Your task to perform on an android device: star an email in the gmail app Image 0: 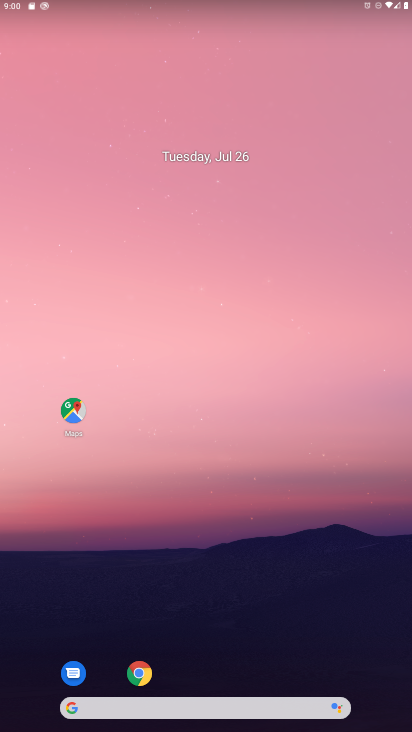
Step 0: drag from (327, 639) to (195, 15)
Your task to perform on an android device: star an email in the gmail app Image 1: 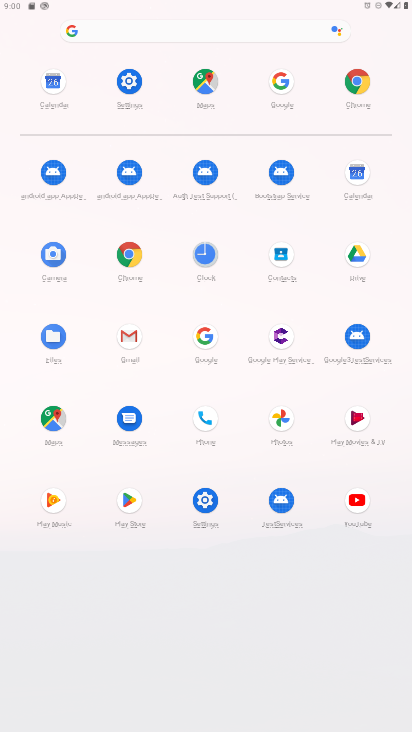
Step 1: click (127, 332)
Your task to perform on an android device: star an email in the gmail app Image 2: 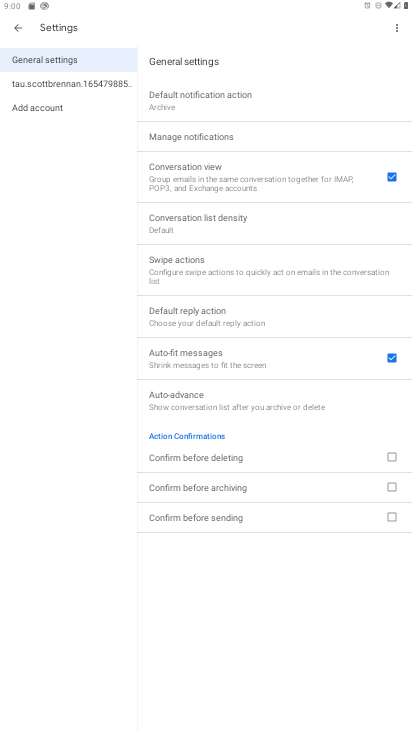
Step 2: click (73, 89)
Your task to perform on an android device: star an email in the gmail app Image 3: 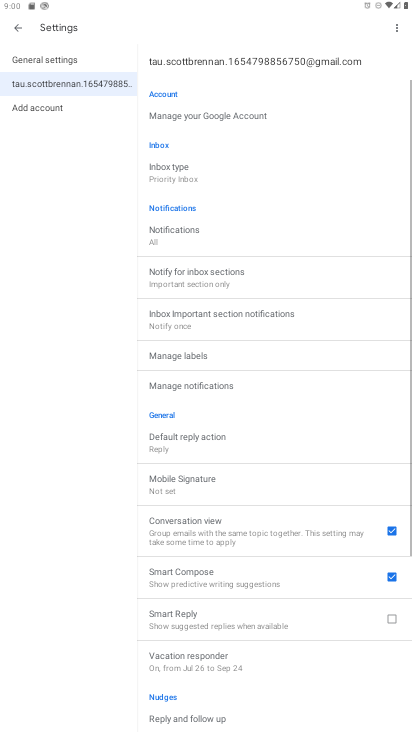
Step 3: press back button
Your task to perform on an android device: star an email in the gmail app Image 4: 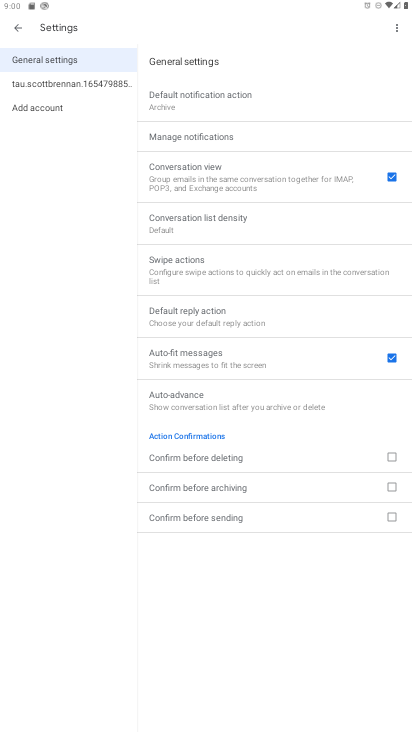
Step 4: press back button
Your task to perform on an android device: star an email in the gmail app Image 5: 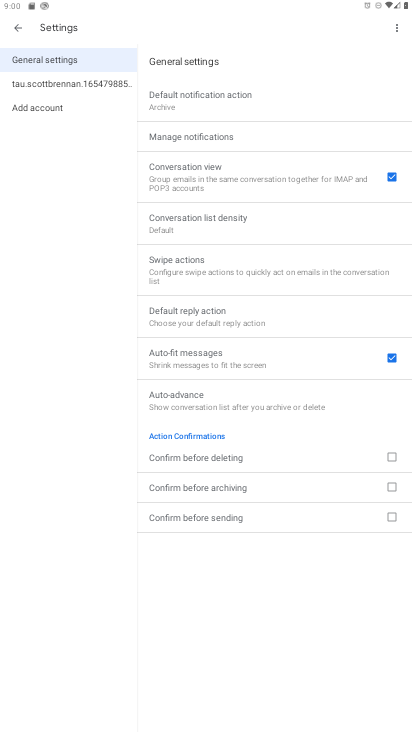
Step 5: press back button
Your task to perform on an android device: star an email in the gmail app Image 6: 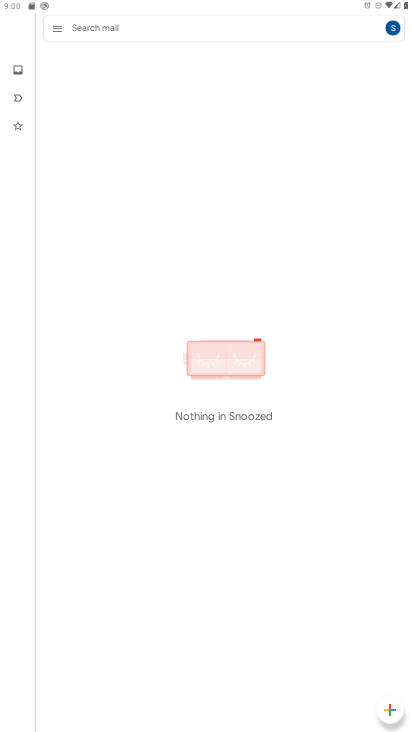
Step 6: click (39, 29)
Your task to perform on an android device: star an email in the gmail app Image 7: 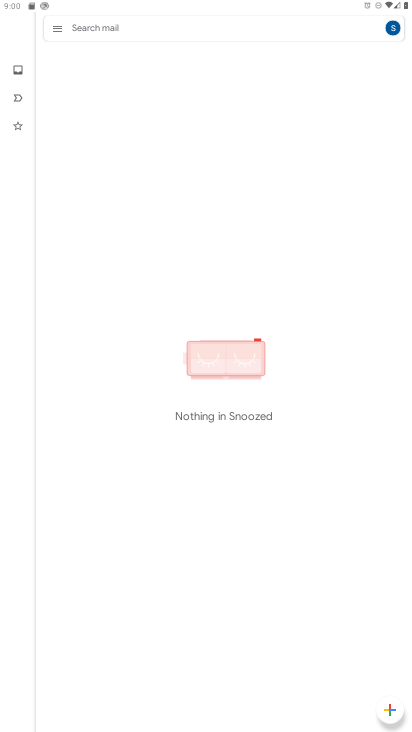
Step 7: click (53, 27)
Your task to perform on an android device: star an email in the gmail app Image 8: 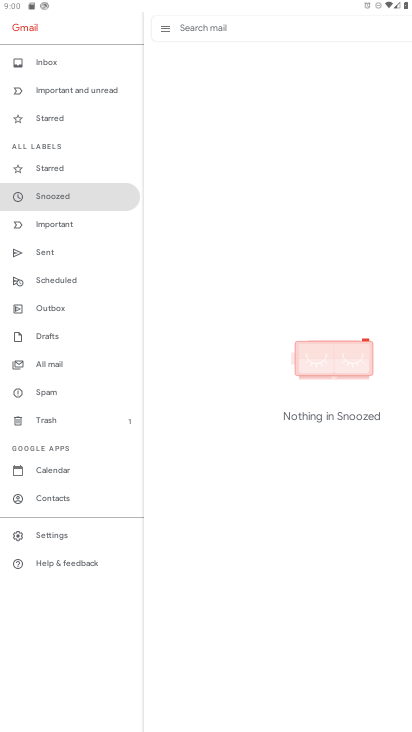
Step 8: click (35, 66)
Your task to perform on an android device: star an email in the gmail app Image 9: 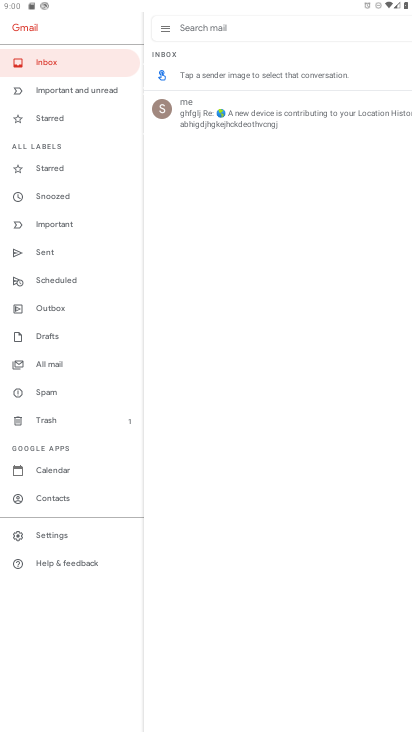
Step 9: click (258, 104)
Your task to perform on an android device: star an email in the gmail app Image 10: 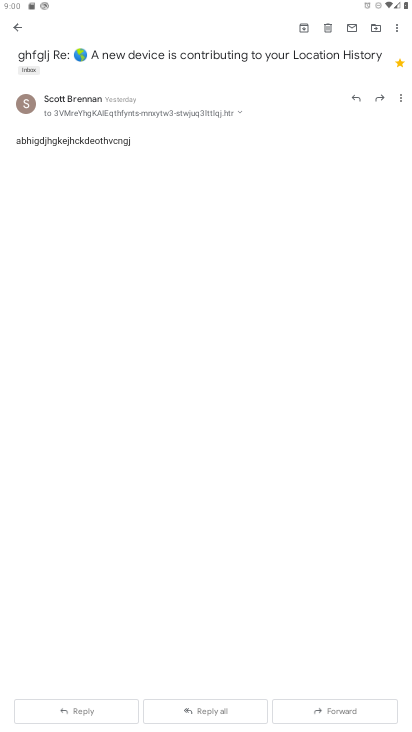
Step 10: task complete